Your task to perform on an android device: toggle priority inbox in the gmail app Image 0: 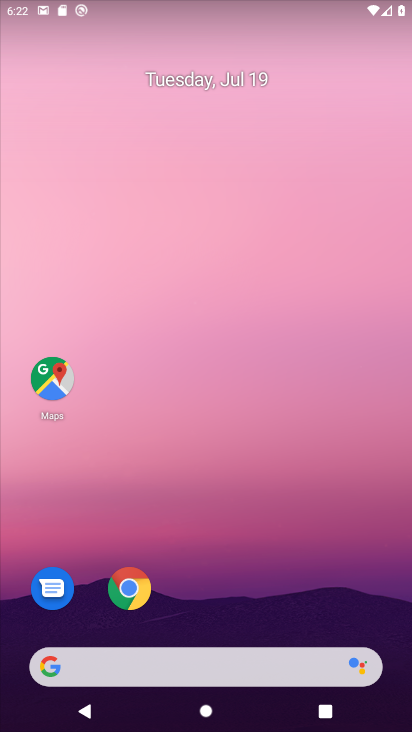
Step 0: drag from (279, 569) to (227, 24)
Your task to perform on an android device: toggle priority inbox in the gmail app Image 1: 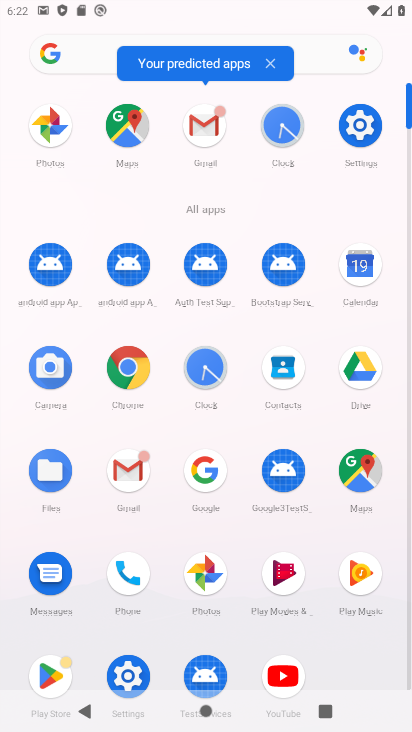
Step 1: click (193, 134)
Your task to perform on an android device: toggle priority inbox in the gmail app Image 2: 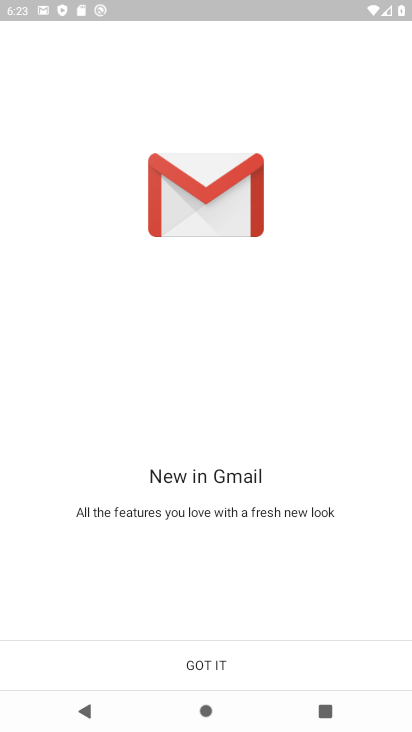
Step 2: click (217, 660)
Your task to perform on an android device: toggle priority inbox in the gmail app Image 3: 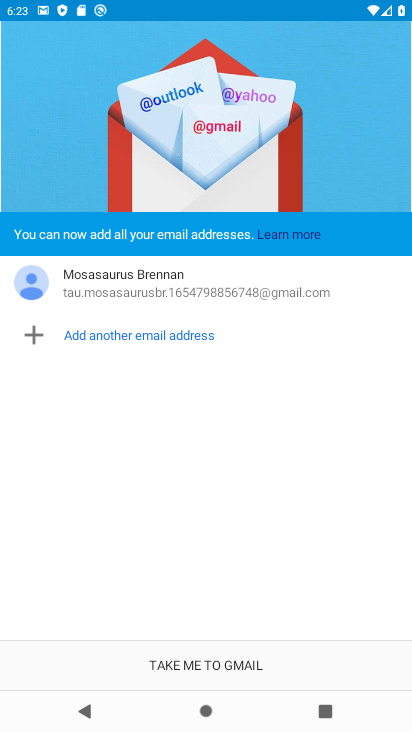
Step 3: click (217, 660)
Your task to perform on an android device: toggle priority inbox in the gmail app Image 4: 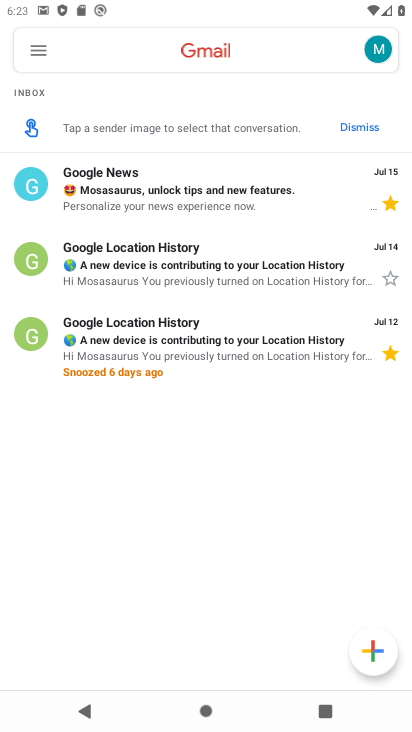
Step 4: click (38, 48)
Your task to perform on an android device: toggle priority inbox in the gmail app Image 5: 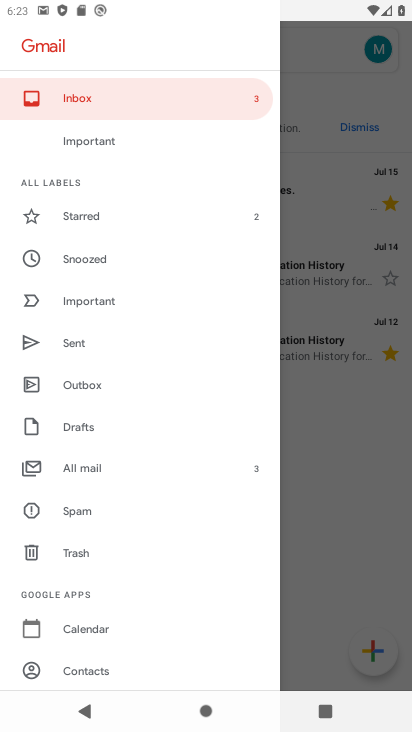
Step 5: drag from (181, 608) to (163, 132)
Your task to perform on an android device: toggle priority inbox in the gmail app Image 6: 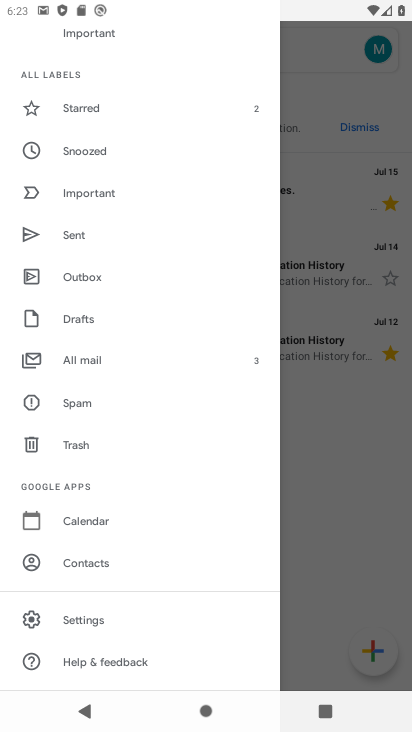
Step 6: click (71, 617)
Your task to perform on an android device: toggle priority inbox in the gmail app Image 7: 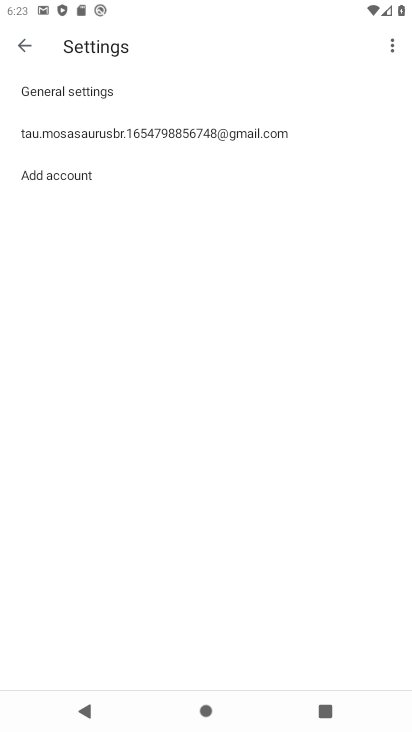
Step 7: click (83, 127)
Your task to perform on an android device: toggle priority inbox in the gmail app Image 8: 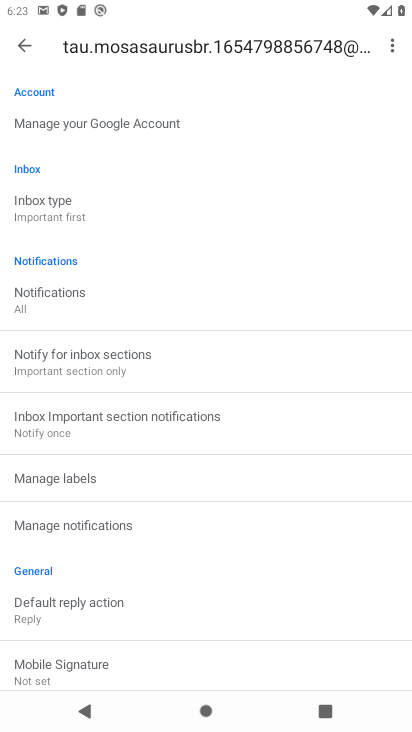
Step 8: click (54, 205)
Your task to perform on an android device: toggle priority inbox in the gmail app Image 9: 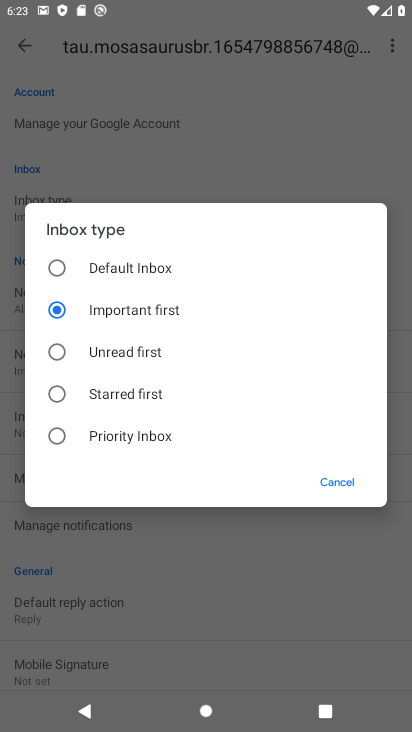
Step 9: click (58, 435)
Your task to perform on an android device: toggle priority inbox in the gmail app Image 10: 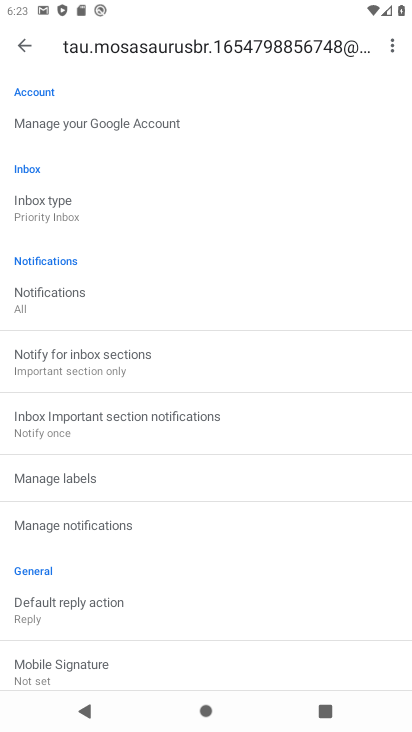
Step 10: task complete